Your task to perform on an android device: Search for the best books on Goodreads. Image 0: 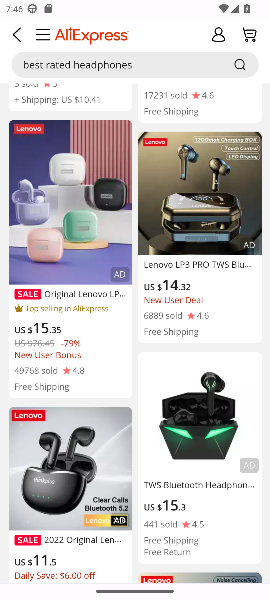
Step 0: click (112, 29)
Your task to perform on an android device: Search for the best books on Goodreads. Image 1: 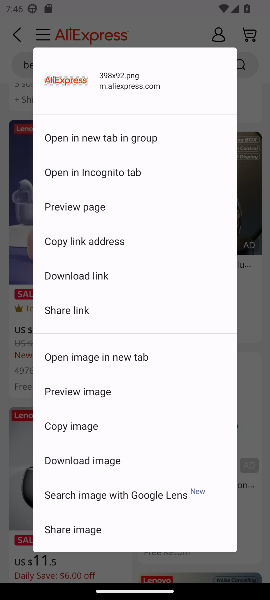
Step 1: press back button
Your task to perform on an android device: Search for the best books on Goodreads. Image 2: 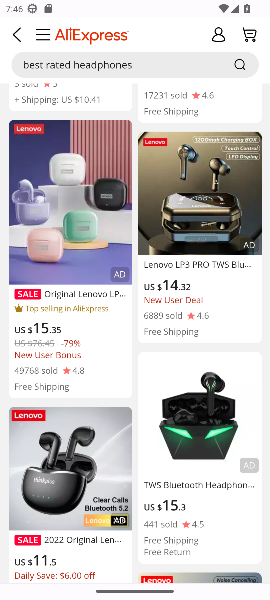
Step 2: click (85, 66)
Your task to perform on an android device: Search for the best books on Goodreads. Image 3: 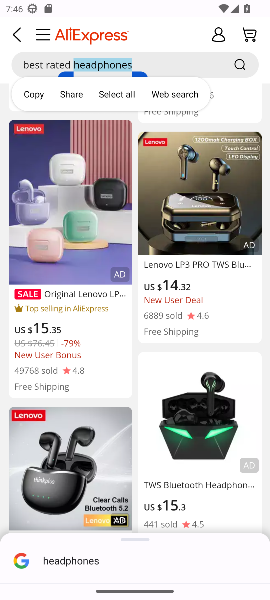
Step 3: click (211, 65)
Your task to perform on an android device: Search for the best books on Goodreads. Image 4: 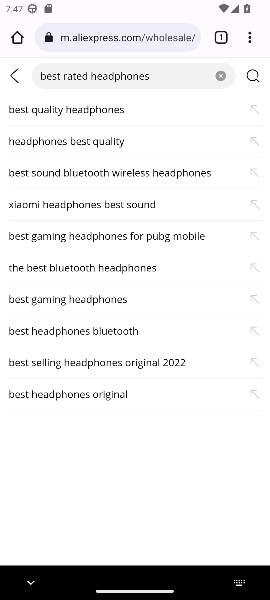
Step 4: click (181, 39)
Your task to perform on an android device: Search for the best books on Goodreads. Image 5: 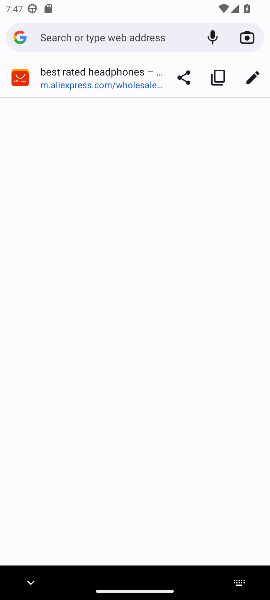
Step 5: type "Goodreads."
Your task to perform on an android device: Search for the best books on Goodreads. Image 6: 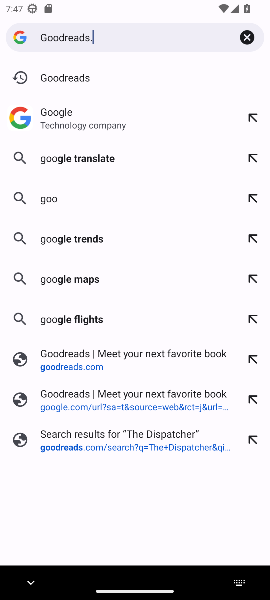
Step 6: press enter
Your task to perform on an android device: Search for the best books on Goodreads. Image 7: 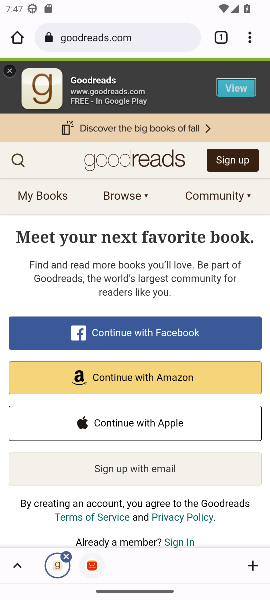
Step 7: task complete